Your task to perform on an android device: turn notification dots on Image 0: 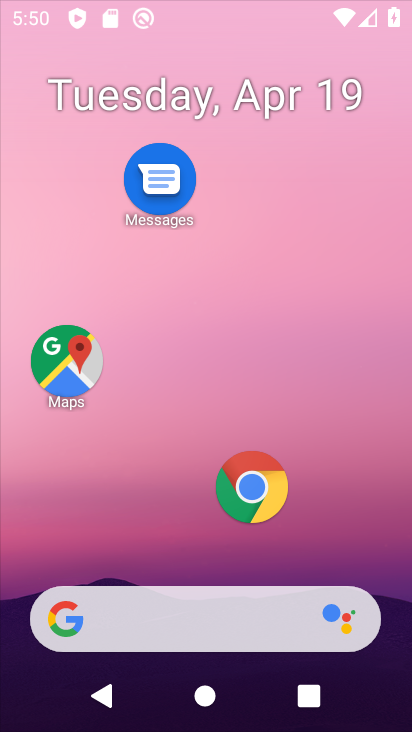
Step 0: drag from (186, 553) to (277, 8)
Your task to perform on an android device: turn notification dots on Image 1: 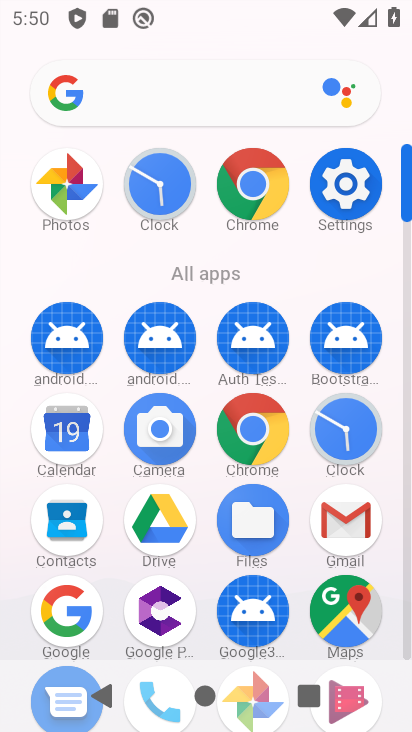
Step 1: click (342, 181)
Your task to perform on an android device: turn notification dots on Image 2: 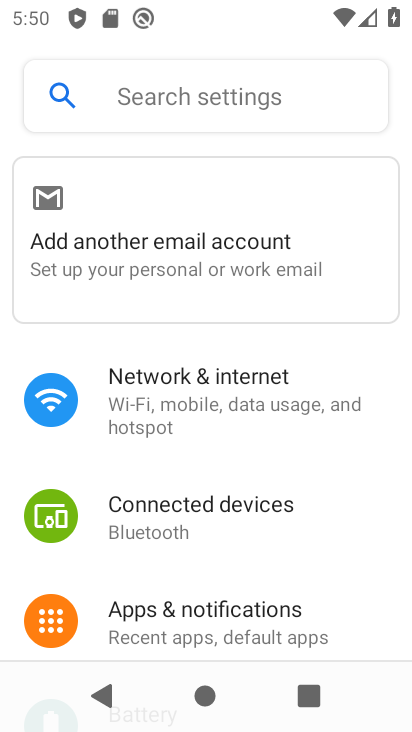
Step 2: click (287, 613)
Your task to perform on an android device: turn notification dots on Image 3: 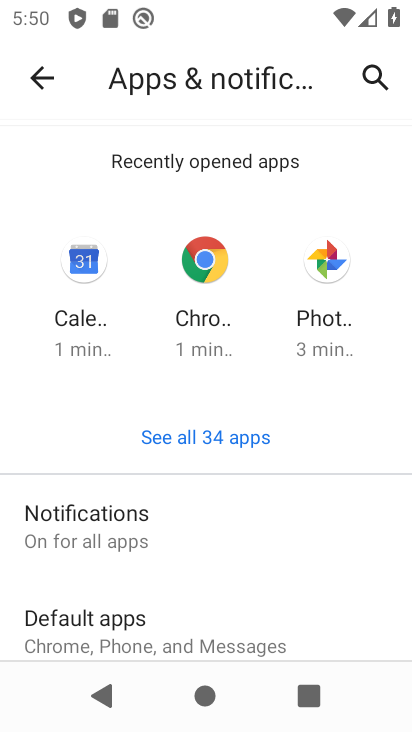
Step 3: click (158, 523)
Your task to perform on an android device: turn notification dots on Image 4: 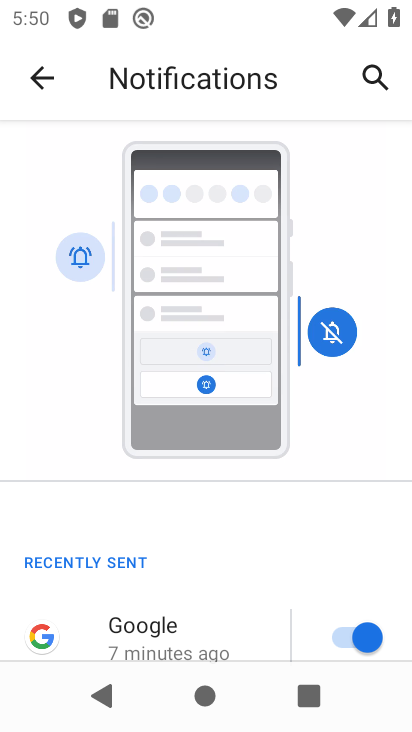
Step 4: drag from (230, 620) to (285, 266)
Your task to perform on an android device: turn notification dots on Image 5: 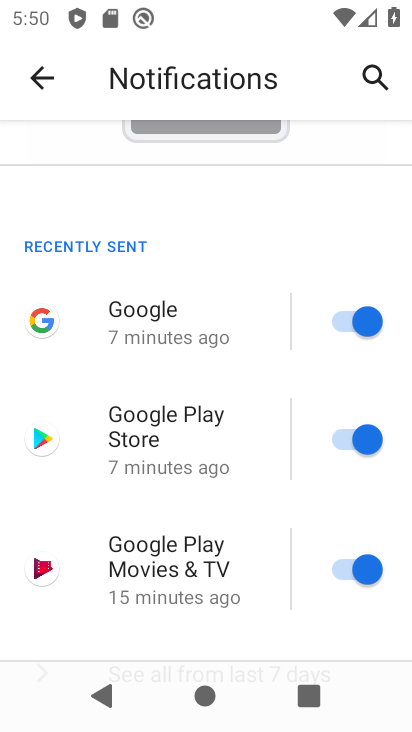
Step 5: drag from (254, 598) to (287, 236)
Your task to perform on an android device: turn notification dots on Image 6: 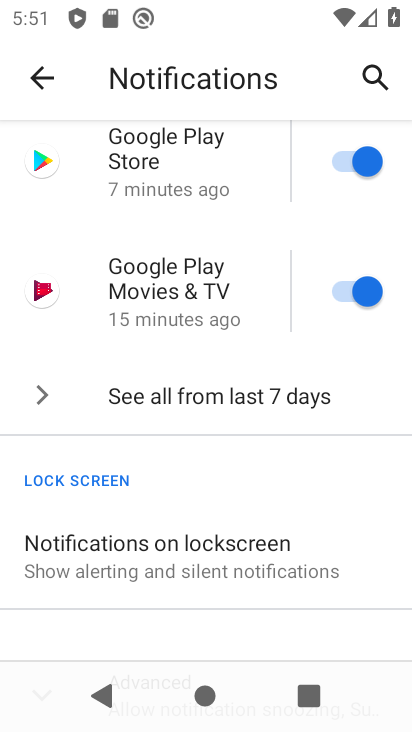
Step 6: drag from (214, 614) to (246, 239)
Your task to perform on an android device: turn notification dots on Image 7: 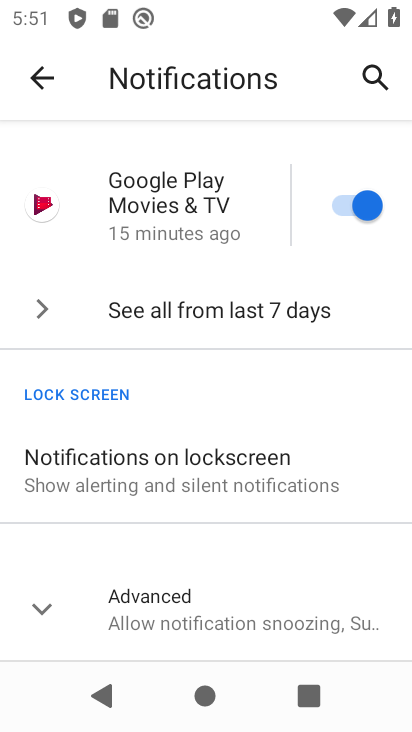
Step 7: click (41, 602)
Your task to perform on an android device: turn notification dots on Image 8: 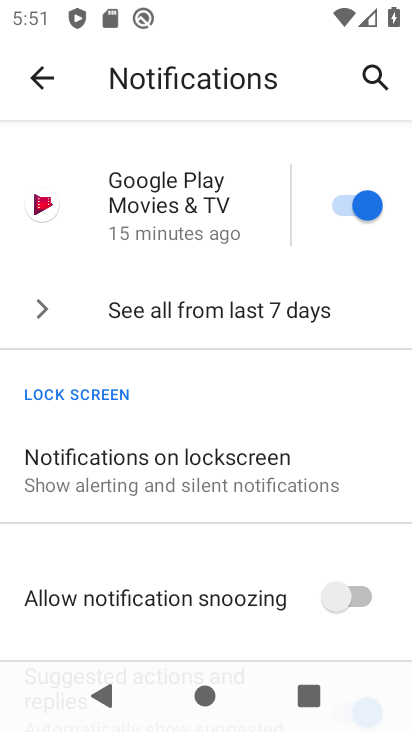
Step 8: task complete